Your task to perform on an android device: Open Chrome and go to settings Image 0: 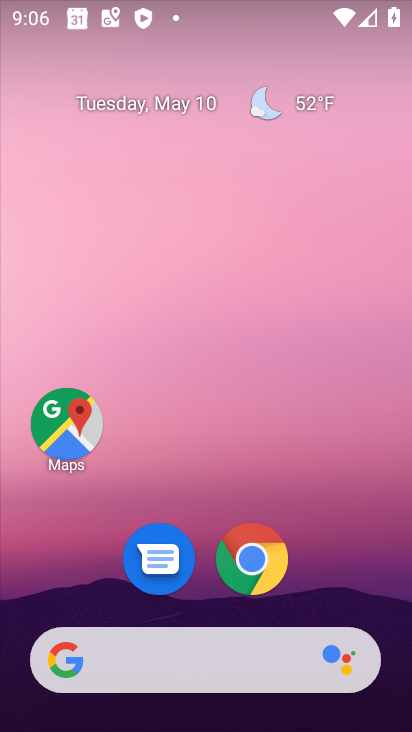
Step 0: drag from (319, 546) to (222, 1)
Your task to perform on an android device: Open Chrome and go to settings Image 1: 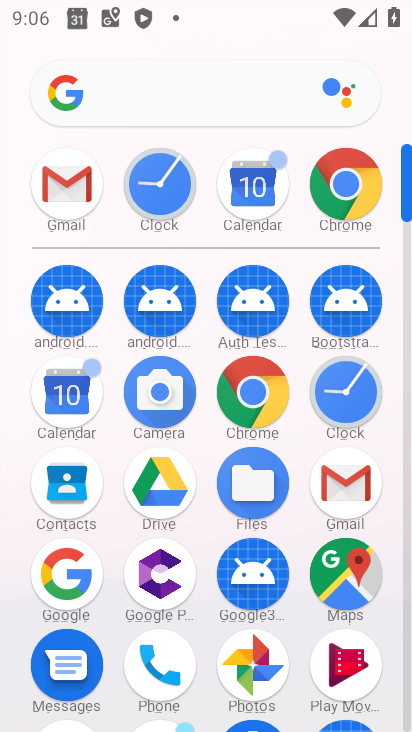
Step 1: drag from (12, 538) to (5, 230)
Your task to perform on an android device: Open Chrome and go to settings Image 2: 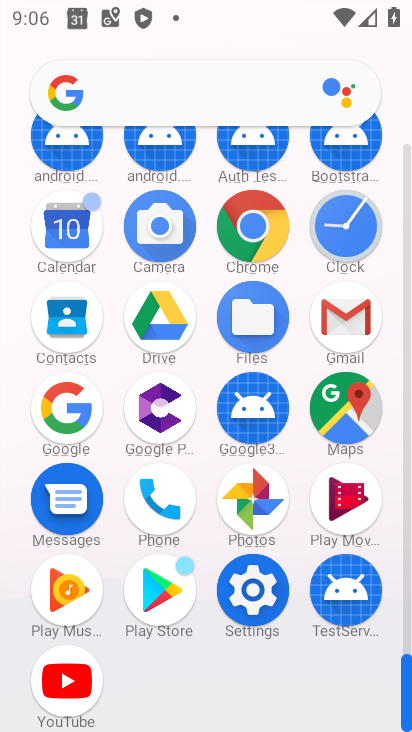
Step 2: click (253, 223)
Your task to perform on an android device: Open Chrome and go to settings Image 3: 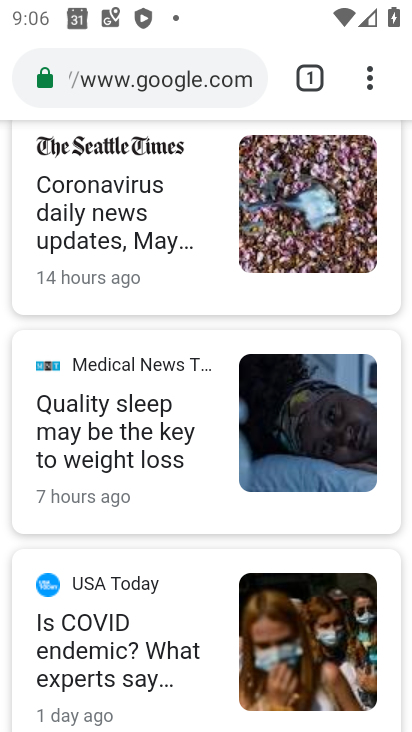
Step 3: task complete